Your task to perform on an android device: Open Chrome and go to the settings page Image 0: 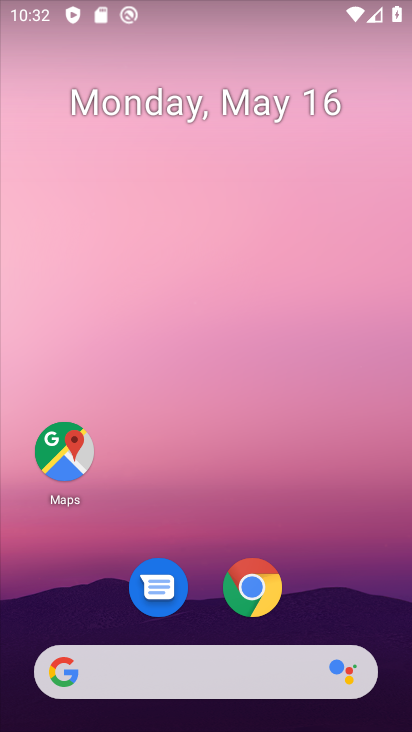
Step 0: drag from (378, 631) to (291, 52)
Your task to perform on an android device: Open Chrome and go to the settings page Image 1: 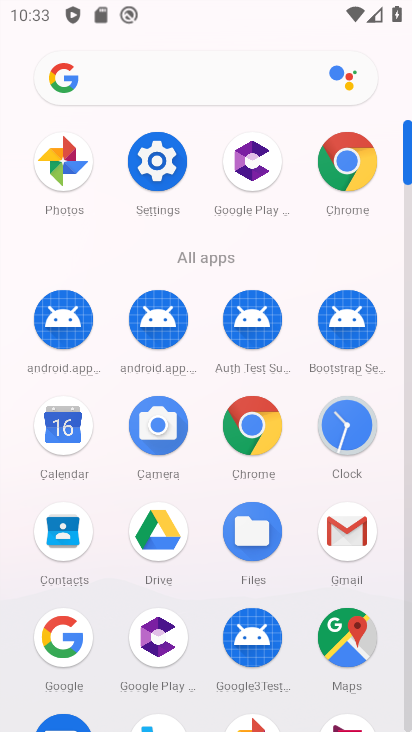
Step 1: click (357, 172)
Your task to perform on an android device: Open Chrome and go to the settings page Image 2: 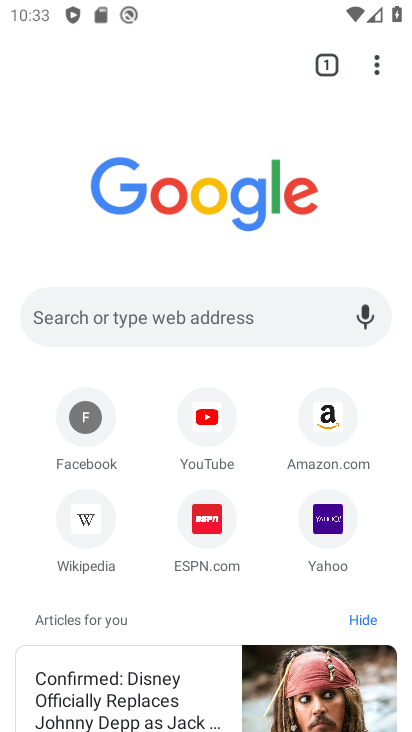
Step 2: click (376, 65)
Your task to perform on an android device: Open Chrome and go to the settings page Image 3: 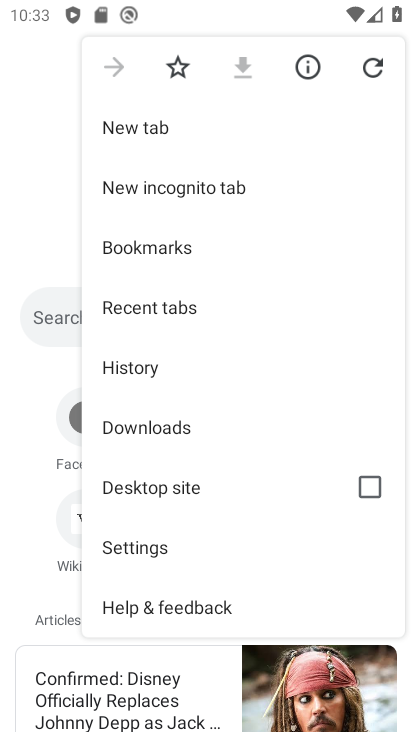
Step 3: click (185, 538)
Your task to perform on an android device: Open Chrome and go to the settings page Image 4: 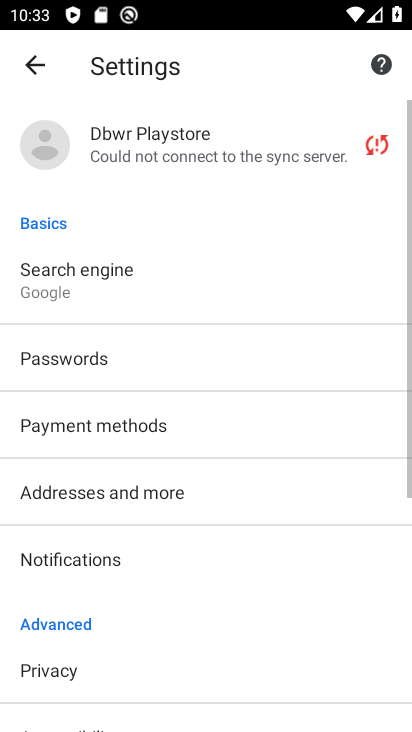
Step 4: task complete